Your task to perform on an android device: Go to Yahoo.com Image 0: 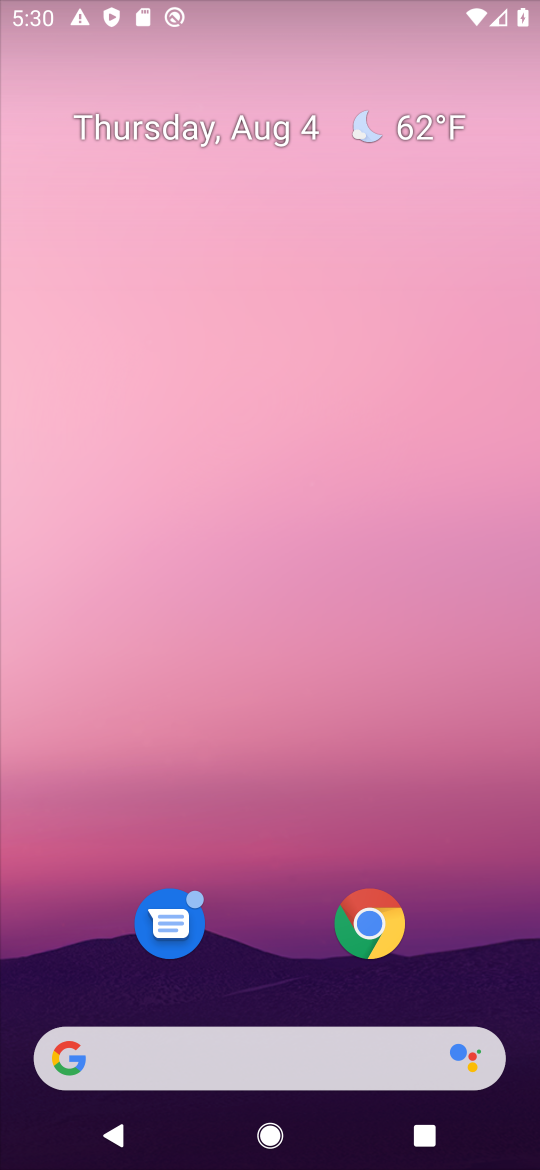
Step 0: press home button
Your task to perform on an android device: Go to Yahoo.com Image 1: 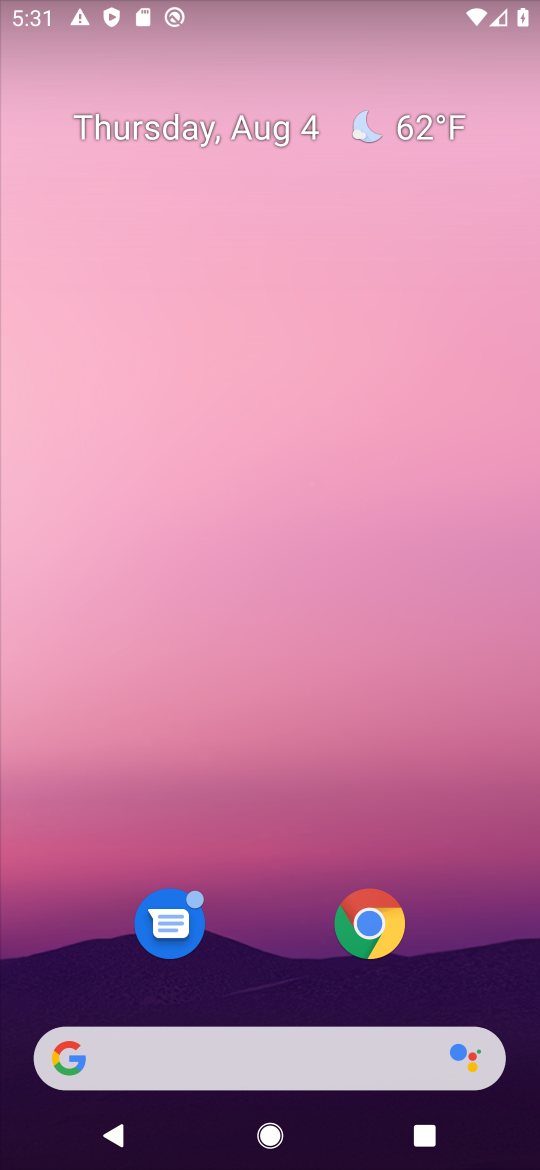
Step 1: click (383, 921)
Your task to perform on an android device: Go to Yahoo.com Image 2: 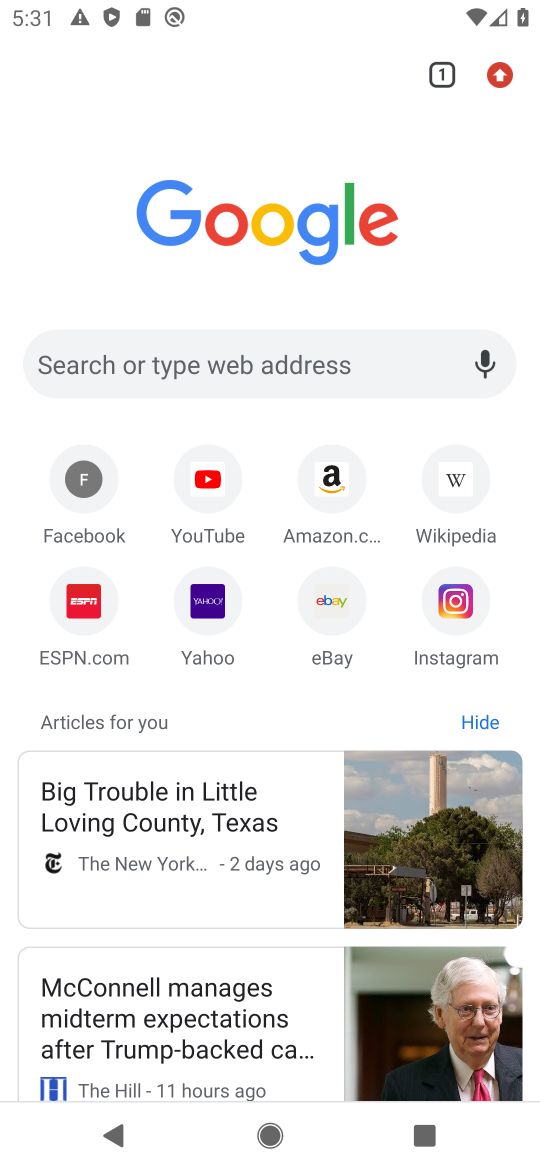
Step 2: click (202, 614)
Your task to perform on an android device: Go to Yahoo.com Image 3: 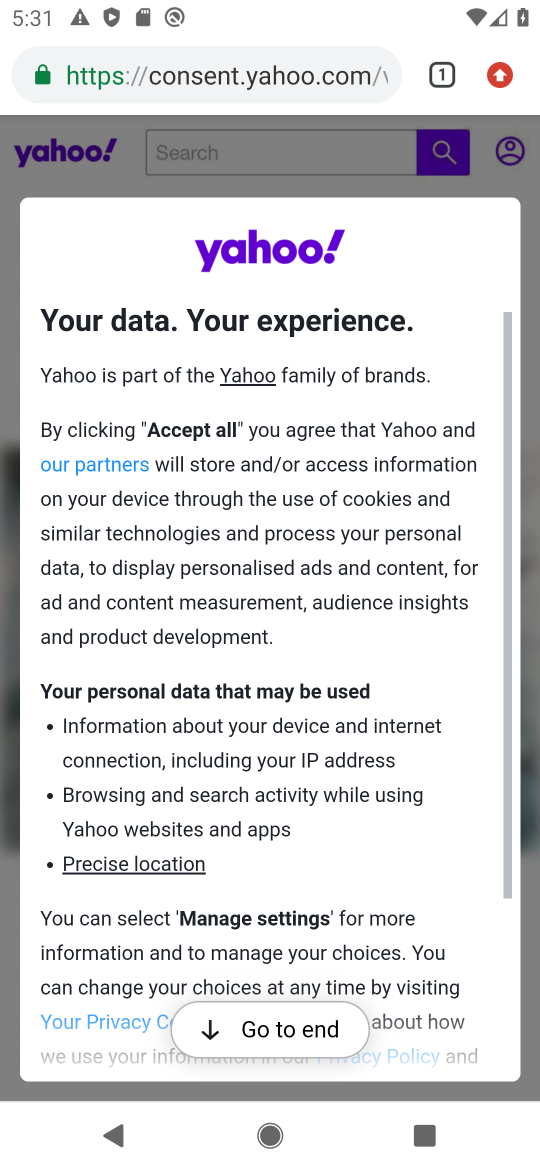
Step 3: task complete